Your task to perform on an android device: turn off priority inbox in the gmail app Image 0: 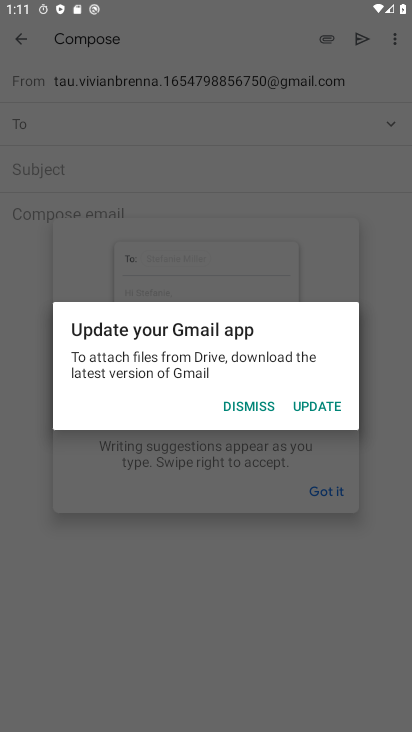
Step 0: press home button
Your task to perform on an android device: turn off priority inbox in the gmail app Image 1: 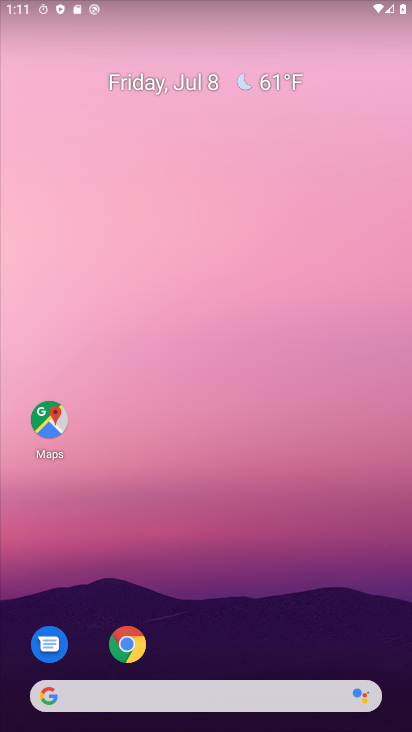
Step 1: drag from (169, 258) to (207, 88)
Your task to perform on an android device: turn off priority inbox in the gmail app Image 2: 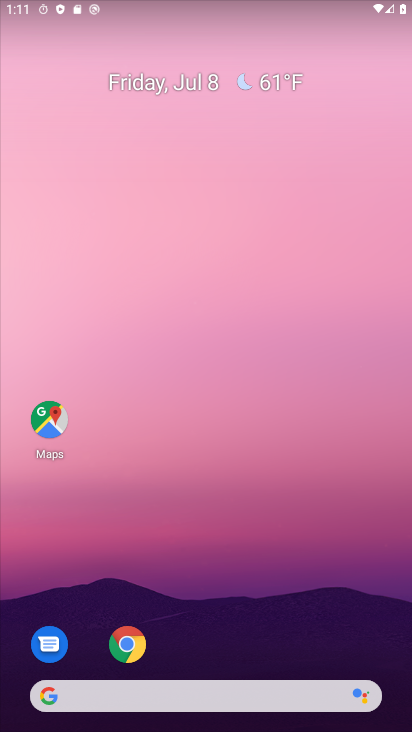
Step 2: drag from (198, 479) to (252, 15)
Your task to perform on an android device: turn off priority inbox in the gmail app Image 3: 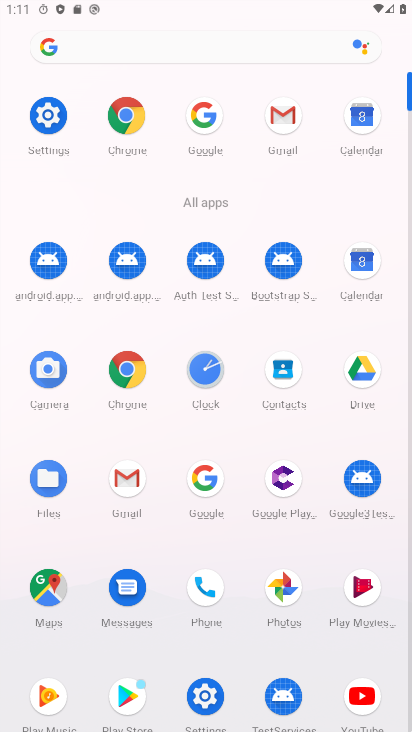
Step 3: click (279, 115)
Your task to perform on an android device: turn off priority inbox in the gmail app Image 4: 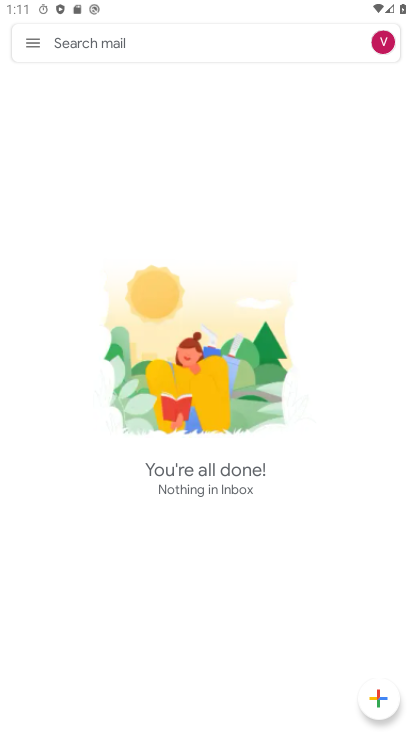
Step 4: click (41, 45)
Your task to perform on an android device: turn off priority inbox in the gmail app Image 5: 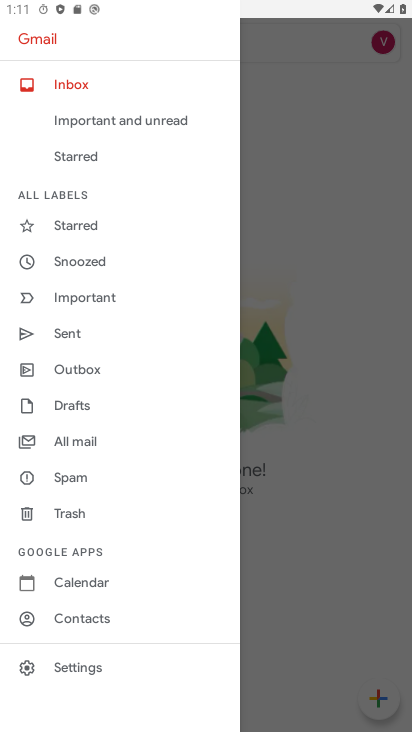
Step 5: click (76, 666)
Your task to perform on an android device: turn off priority inbox in the gmail app Image 6: 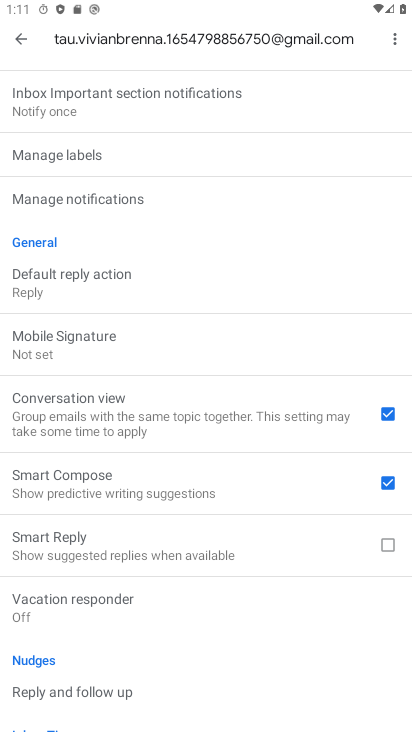
Step 6: drag from (94, 241) to (142, 434)
Your task to perform on an android device: turn off priority inbox in the gmail app Image 7: 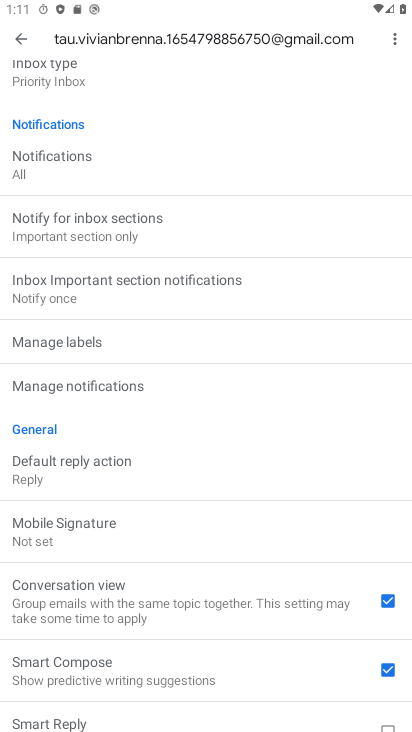
Step 7: click (53, 66)
Your task to perform on an android device: turn off priority inbox in the gmail app Image 8: 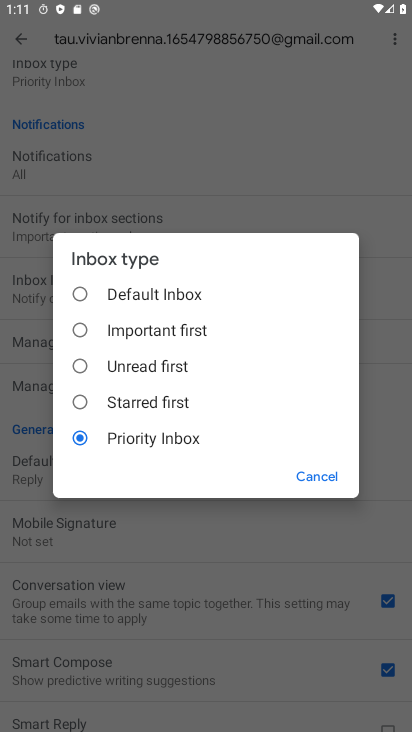
Step 8: click (82, 292)
Your task to perform on an android device: turn off priority inbox in the gmail app Image 9: 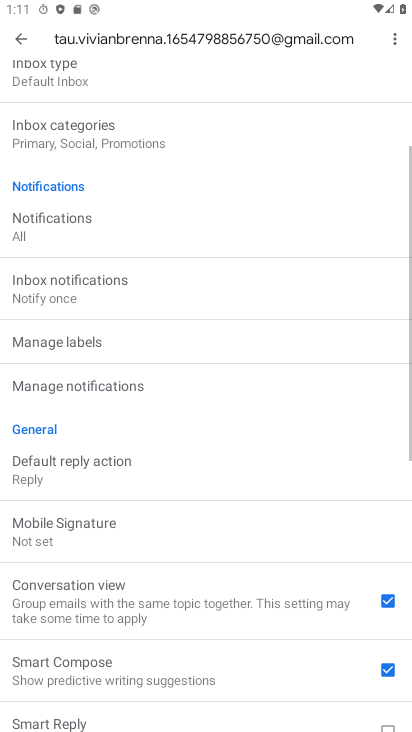
Step 9: task complete